Your task to perform on an android device: check storage Image 0: 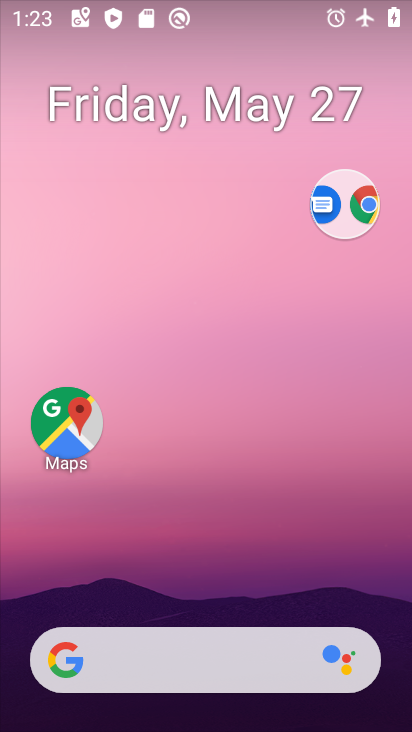
Step 0: drag from (236, 645) to (224, 114)
Your task to perform on an android device: check storage Image 1: 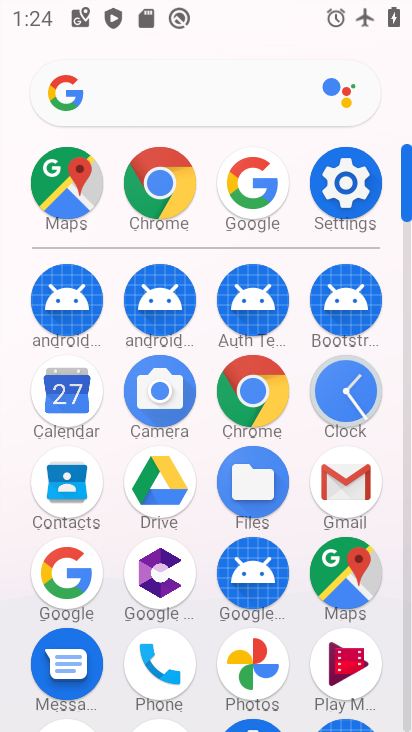
Step 1: click (350, 189)
Your task to perform on an android device: check storage Image 2: 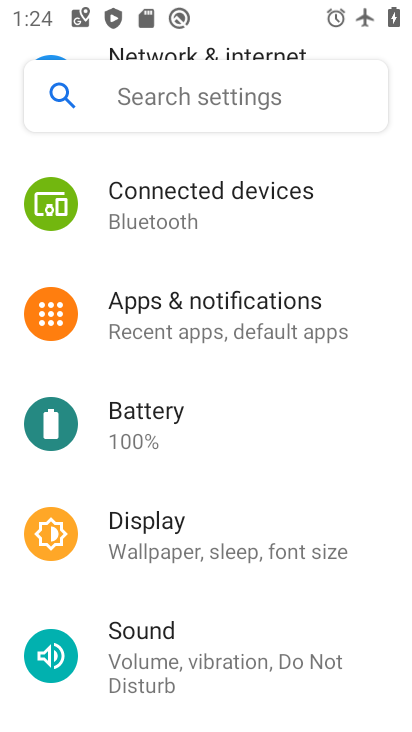
Step 2: drag from (213, 553) to (231, 141)
Your task to perform on an android device: check storage Image 3: 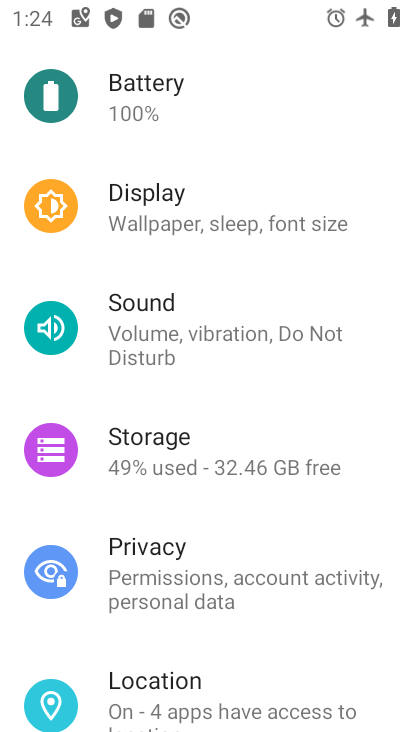
Step 3: click (192, 475)
Your task to perform on an android device: check storage Image 4: 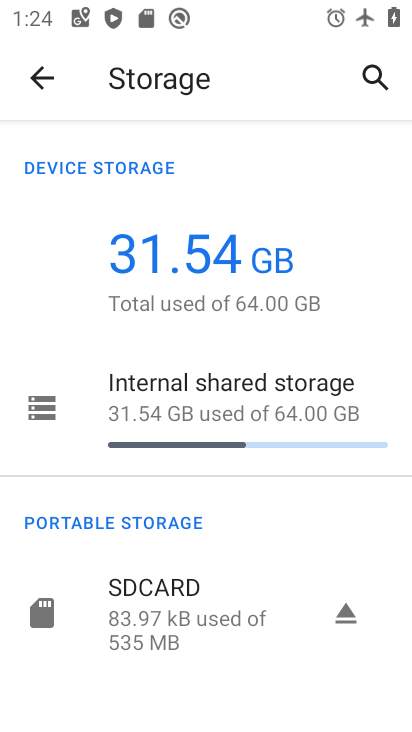
Step 4: click (262, 400)
Your task to perform on an android device: check storage Image 5: 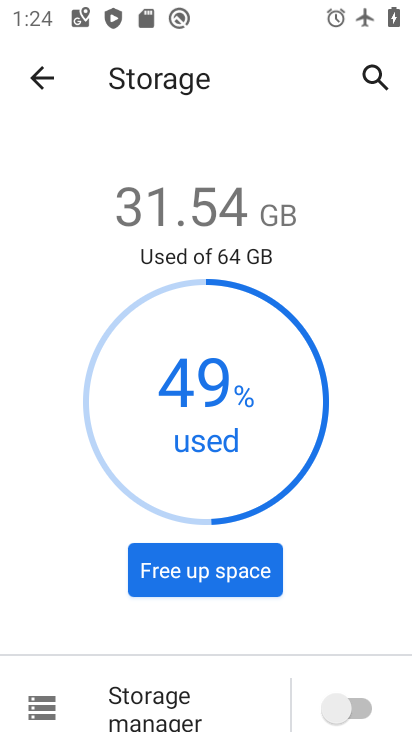
Step 5: task complete